Your task to perform on an android device: Open notification settings Image 0: 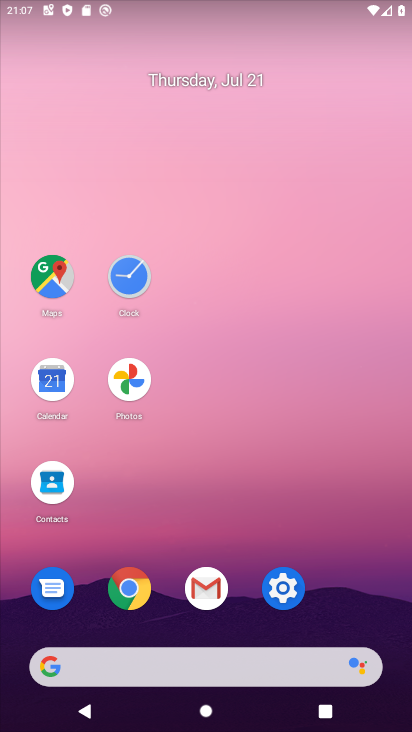
Step 0: click (288, 588)
Your task to perform on an android device: Open notification settings Image 1: 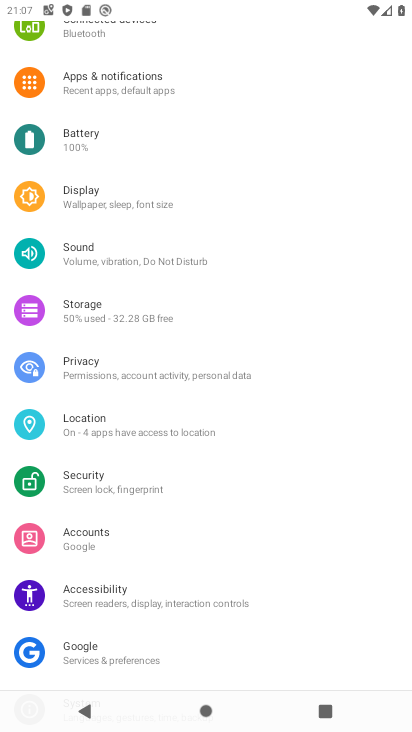
Step 1: click (109, 77)
Your task to perform on an android device: Open notification settings Image 2: 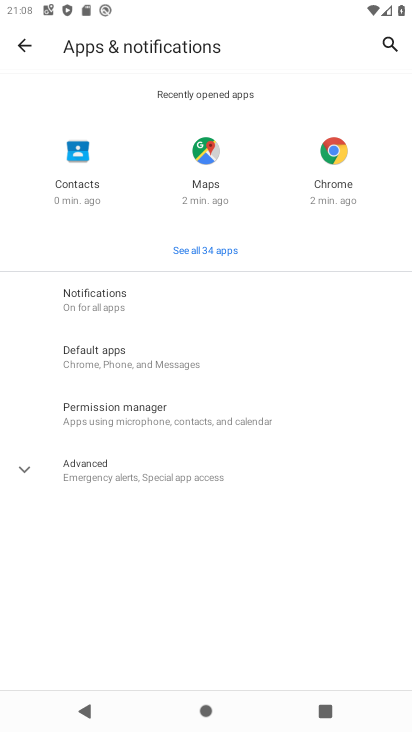
Step 2: click (90, 286)
Your task to perform on an android device: Open notification settings Image 3: 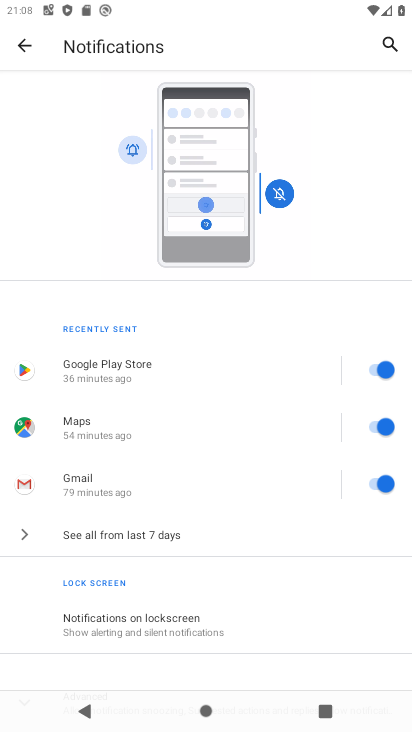
Step 3: task complete